Your task to perform on an android device: open wifi settings Image 0: 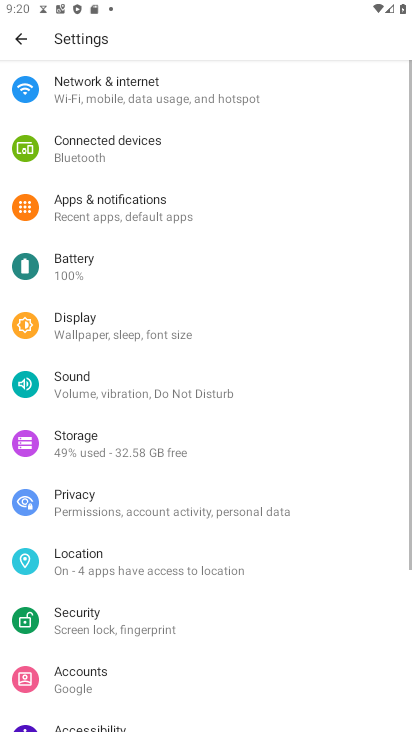
Step 0: press back button
Your task to perform on an android device: open wifi settings Image 1: 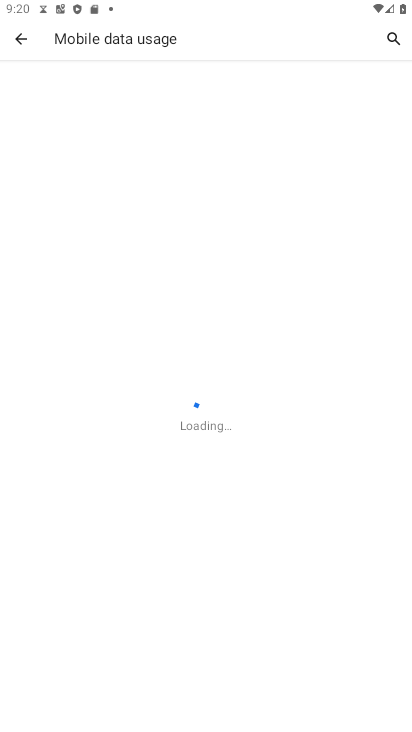
Step 1: drag from (97, 9) to (104, 434)
Your task to perform on an android device: open wifi settings Image 2: 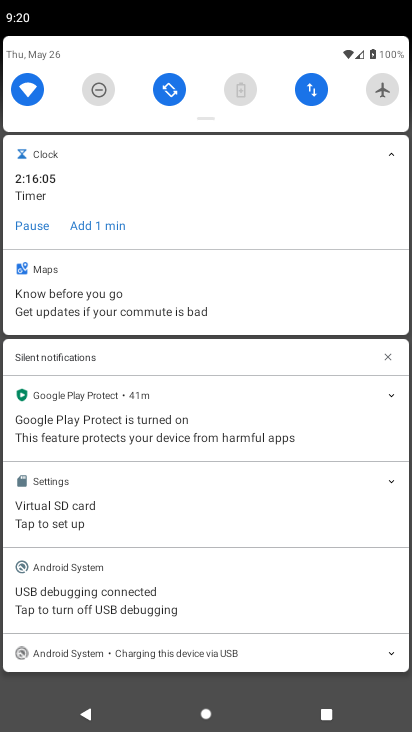
Step 2: click (30, 93)
Your task to perform on an android device: open wifi settings Image 3: 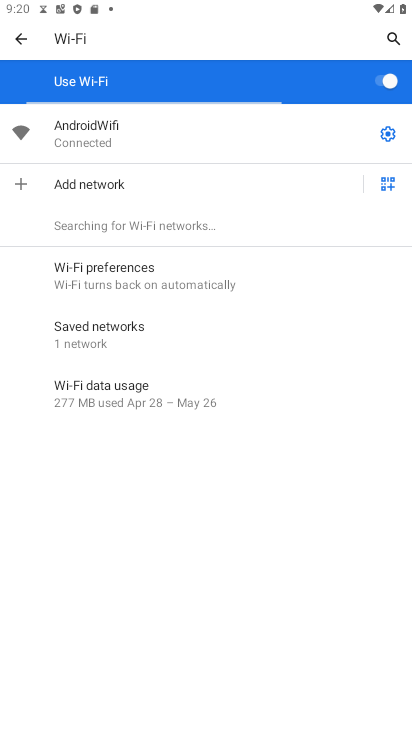
Step 3: task complete